Your task to perform on an android device: toggle pop-ups in chrome Image 0: 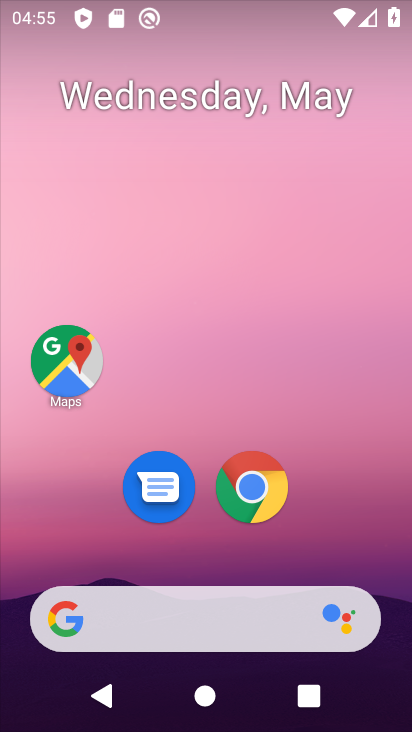
Step 0: click (250, 489)
Your task to perform on an android device: toggle pop-ups in chrome Image 1: 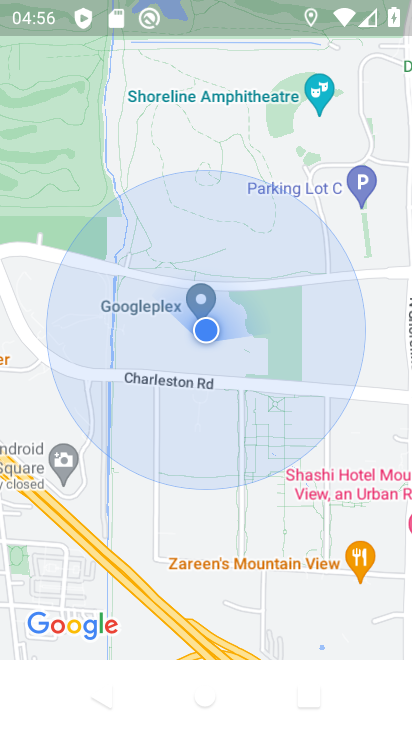
Step 1: press home button
Your task to perform on an android device: toggle pop-ups in chrome Image 2: 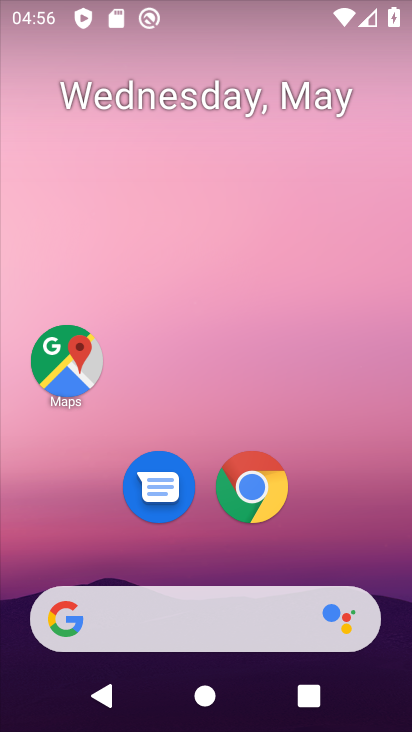
Step 2: click (283, 502)
Your task to perform on an android device: toggle pop-ups in chrome Image 3: 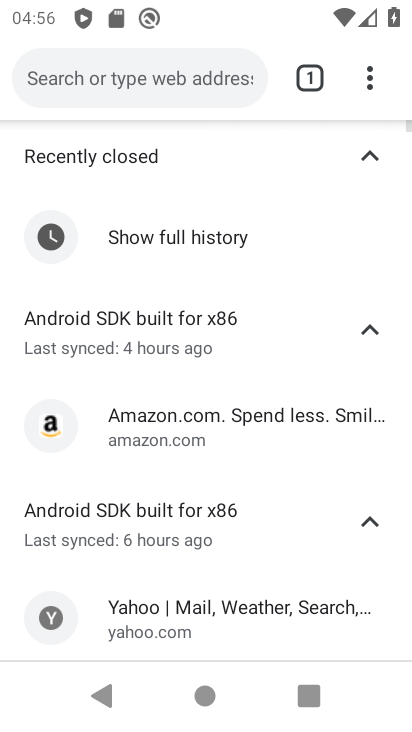
Step 3: click (378, 86)
Your task to perform on an android device: toggle pop-ups in chrome Image 4: 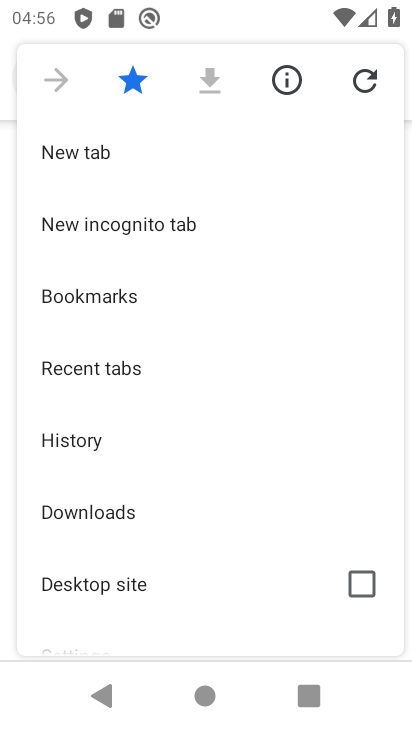
Step 4: drag from (89, 610) to (141, 319)
Your task to perform on an android device: toggle pop-ups in chrome Image 5: 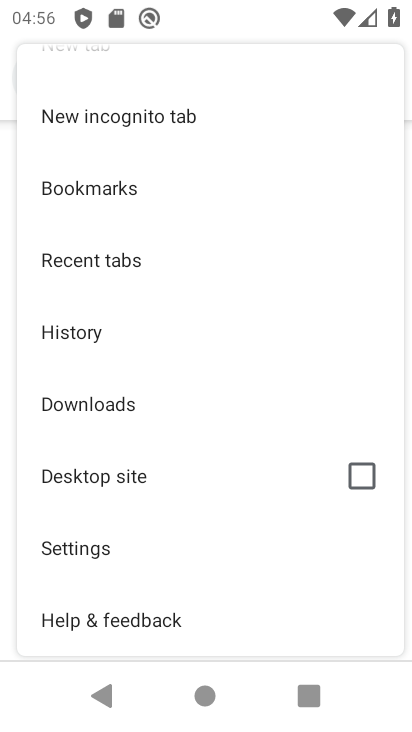
Step 5: click (122, 549)
Your task to perform on an android device: toggle pop-ups in chrome Image 6: 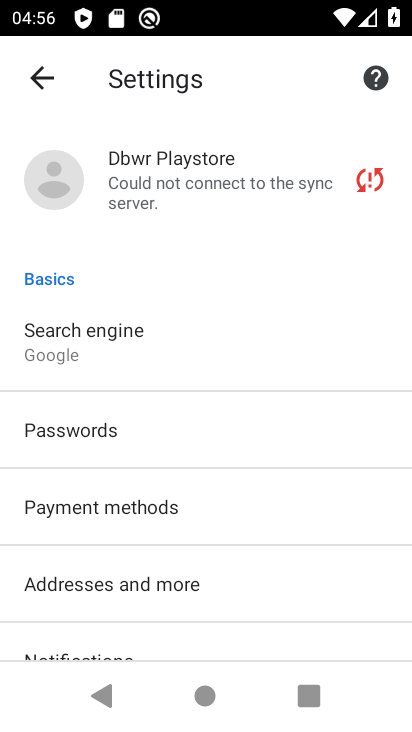
Step 6: drag from (155, 575) to (310, 115)
Your task to perform on an android device: toggle pop-ups in chrome Image 7: 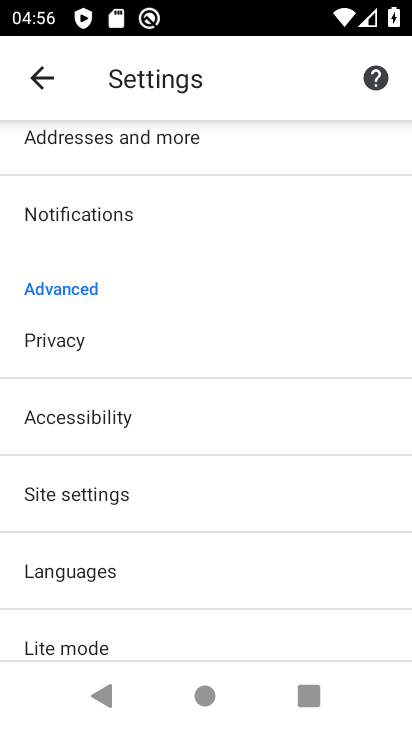
Step 7: click (220, 514)
Your task to perform on an android device: toggle pop-ups in chrome Image 8: 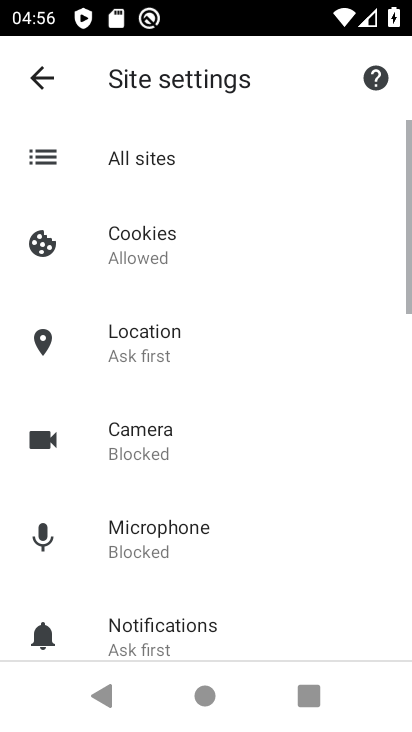
Step 8: drag from (214, 628) to (230, 252)
Your task to perform on an android device: toggle pop-ups in chrome Image 9: 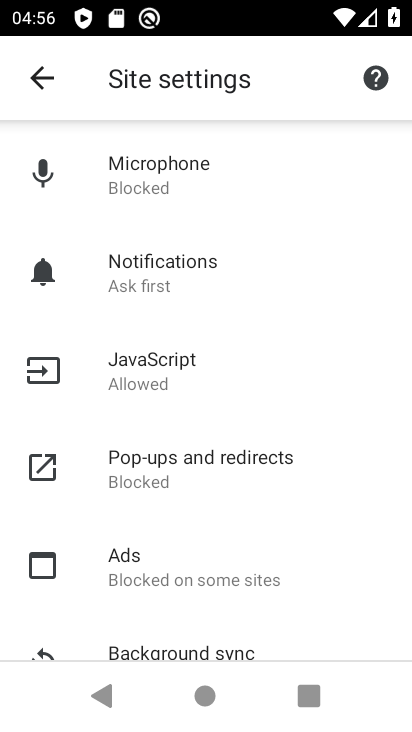
Step 9: click (228, 454)
Your task to perform on an android device: toggle pop-ups in chrome Image 10: 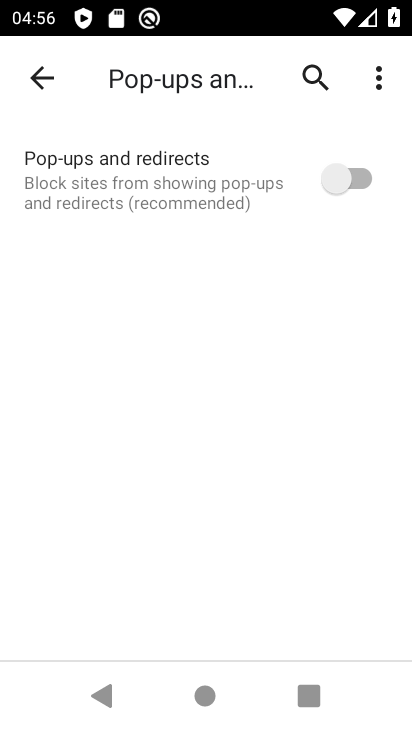
Step 10: click (348, 183)
Your task to perform on an android device: toggle pop-ups in chrome Image 11: 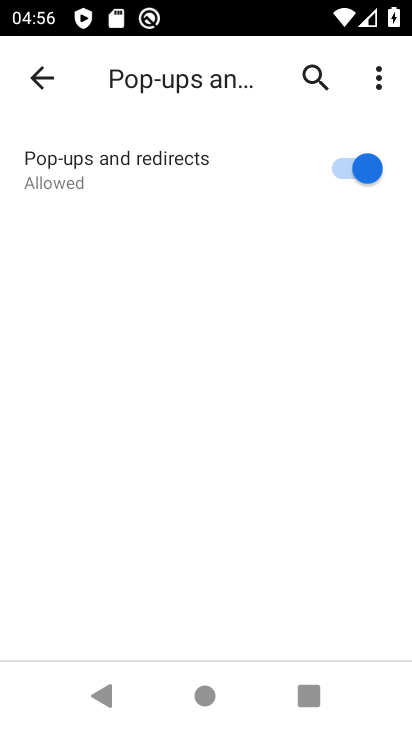
Step 11: task complete